Your task to perform on an android device: toggle translation in the chrome app Image 0: 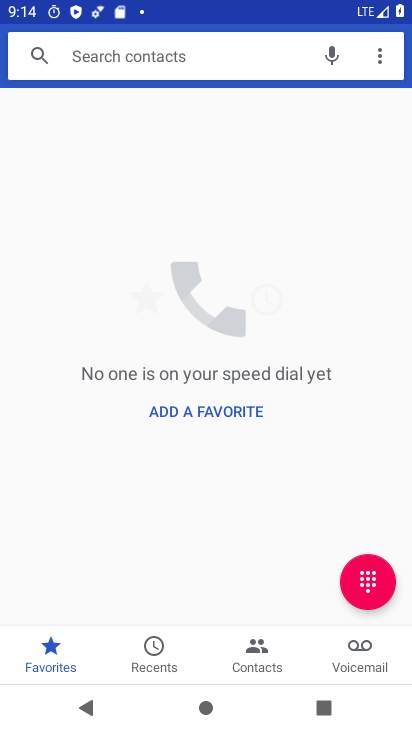
Step 0: press home button
Your task to perform on an android device: toggle translation in the chrome app Image 1: 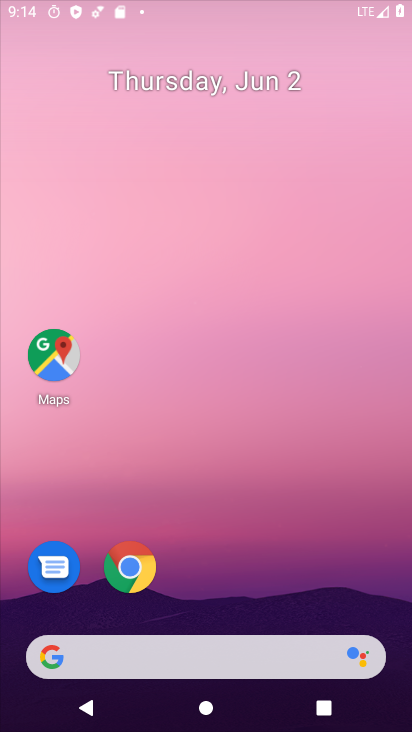
Step 1: drag from (306, 587) to (274, 184)
Your task to perform on an android device: toggle translation in the chrome app Image 2: 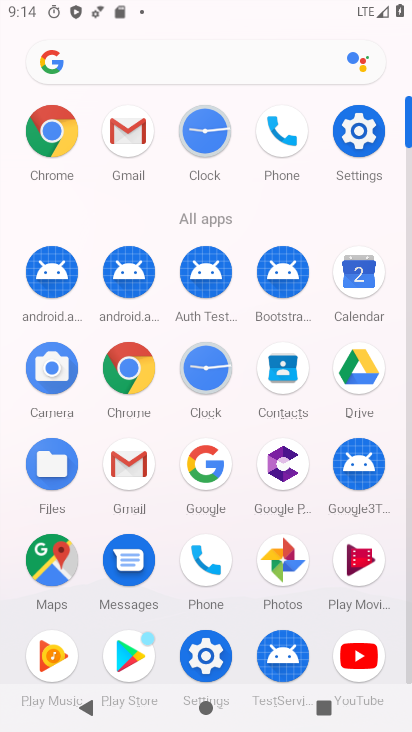
Step 2: click (96, 395)
Your task to perform on an android device: toggle translation in the chrome app Image 3: 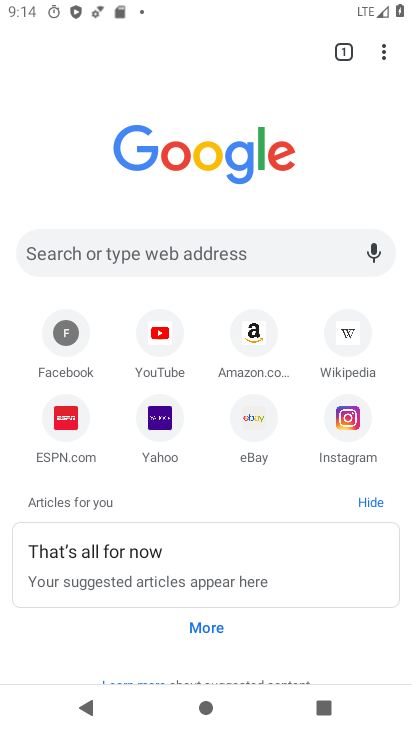
Step 3: drag from (386, 56) to (279, 442)
Your task to perform on an android device: toggle translation in the chrome app Image 4: 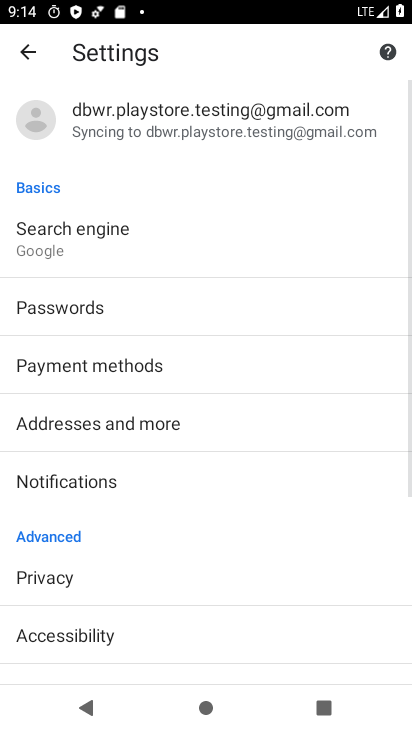
Step 4: drag from (245, 580) to (244, 316)
Your task to perform on an android device: toggle translation in the chrome app Image 5: 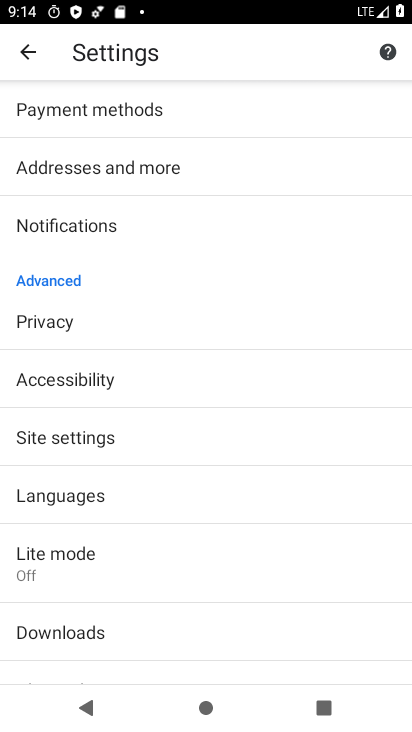
Step 5: click (132, 509)
Your task to perform on an android device: toggle translation in the chrome app Image 6: 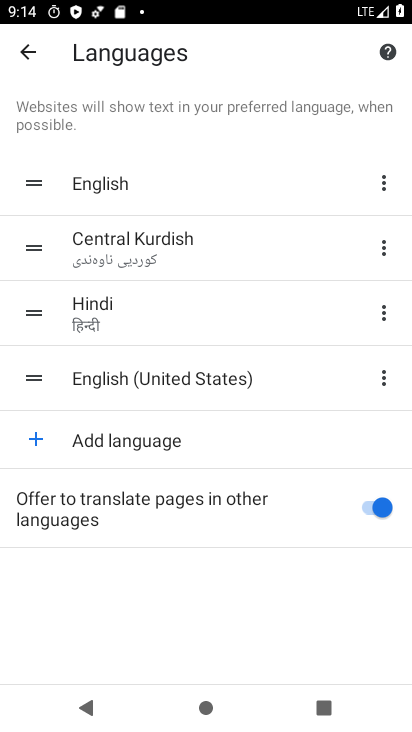
Step 6: click (369, 513)
Your task to perform on an android device: toggle translation in the chrome app Image 7: 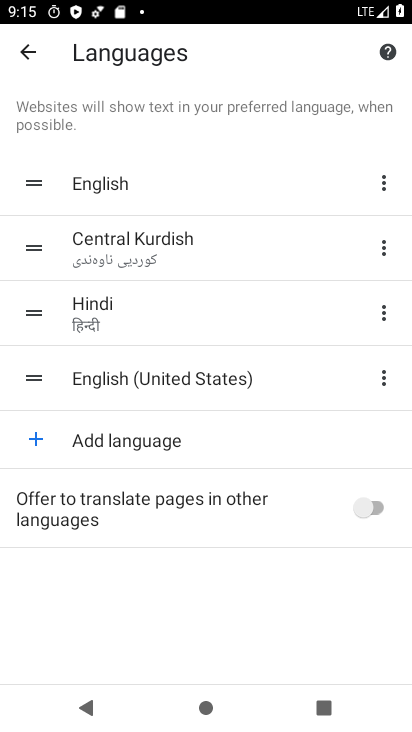
Step 7: task complete